Your task to perform on an android device: delete browsing data in the chrome app Image 0: 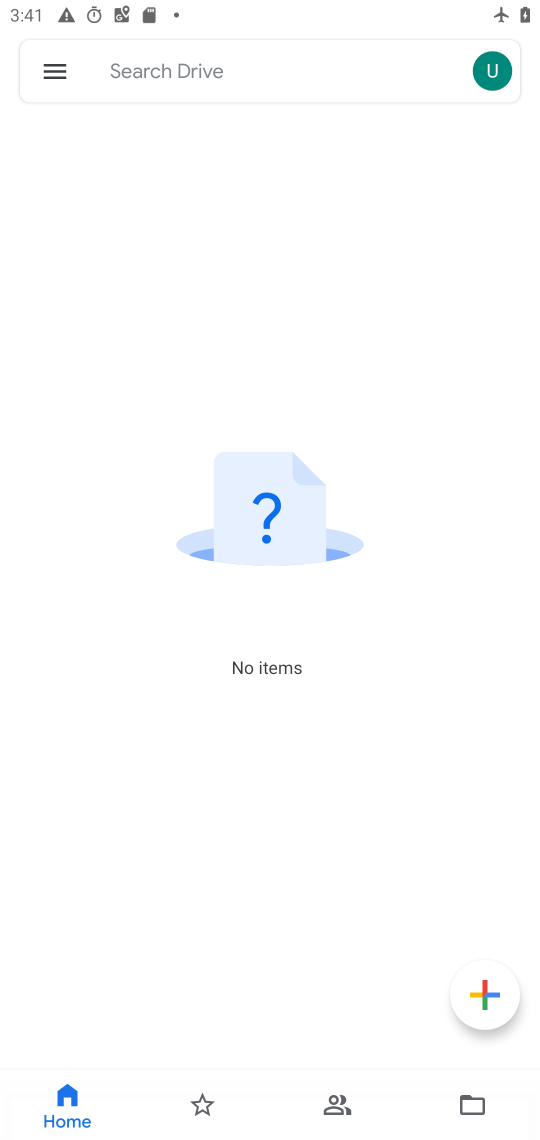
Step 0: press home button
Your task to perform on an android device: delete browsing data in the chrome app Image 1: 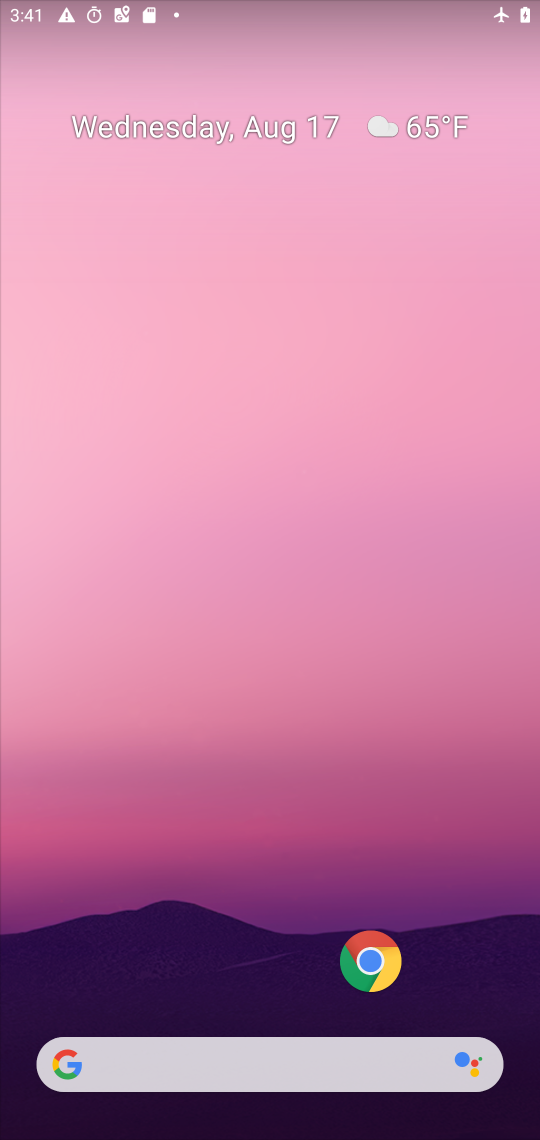
Step 1: drag from (257, 1077) to (218, 285)
Your task to perform on an android device: delete browsing data in the chrome app Image 2: 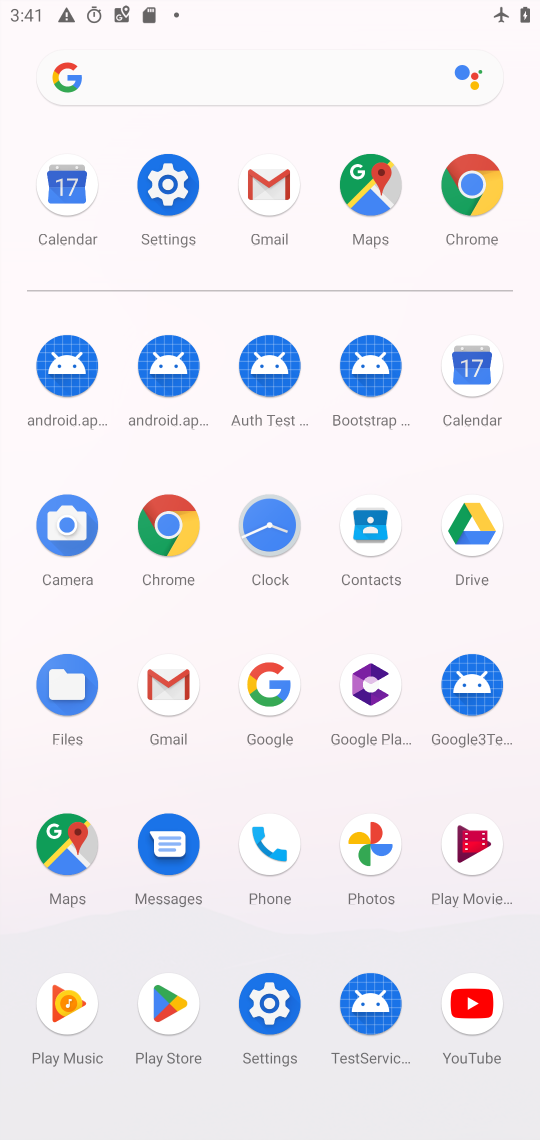
Step 2: click (195, 539)
Your task to perform on an android device: delete browsing data in the chrome app Image 3: 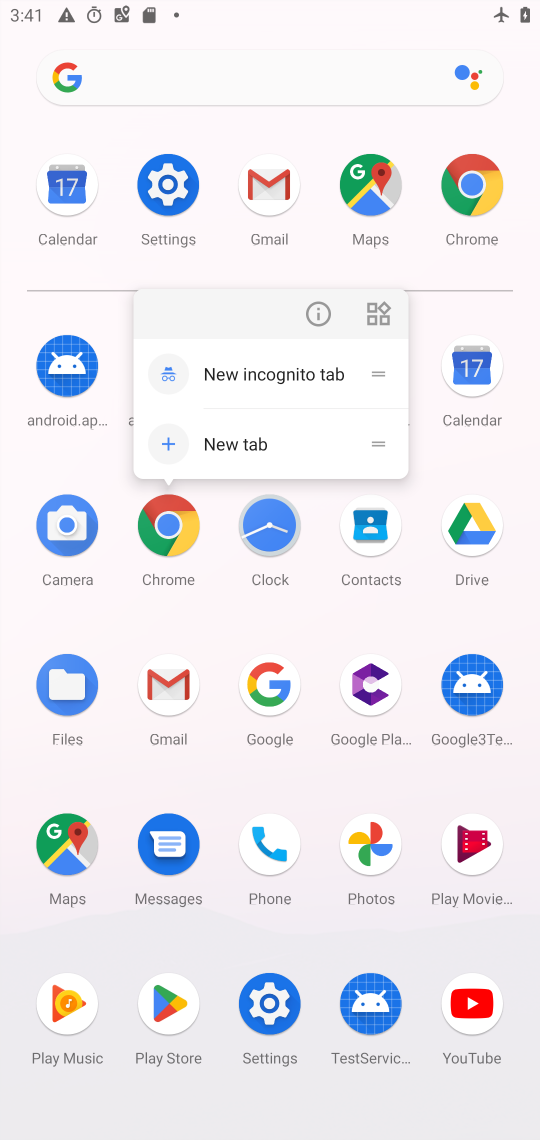
Step 3: click (157, 555)
Your task to perform on an android device: delete browsing data in the chrome app Image 4: 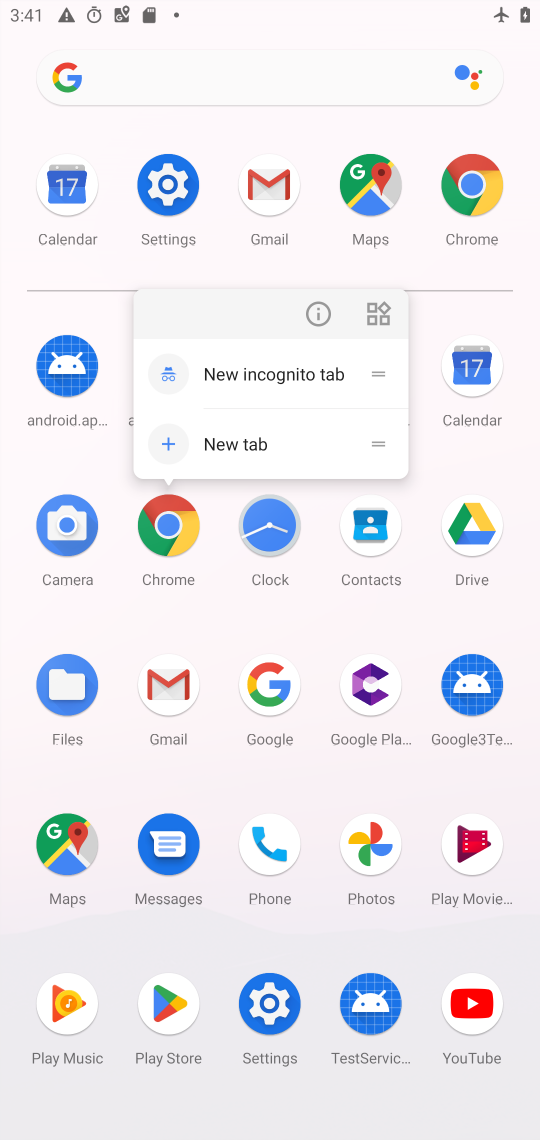
Step 4: click (157, 555)
Your task to perform on an android device: delete browsing data in the chrome app Image 5: 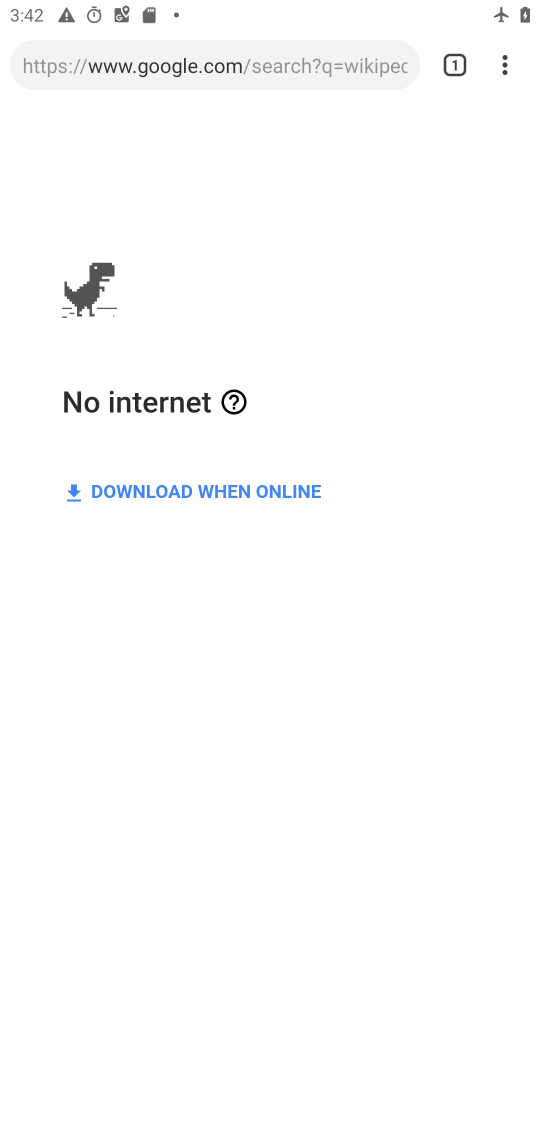
Step 5: click (501, 69)
Your task to perform on an android device: delete browsing data in the chrome app Image 6: 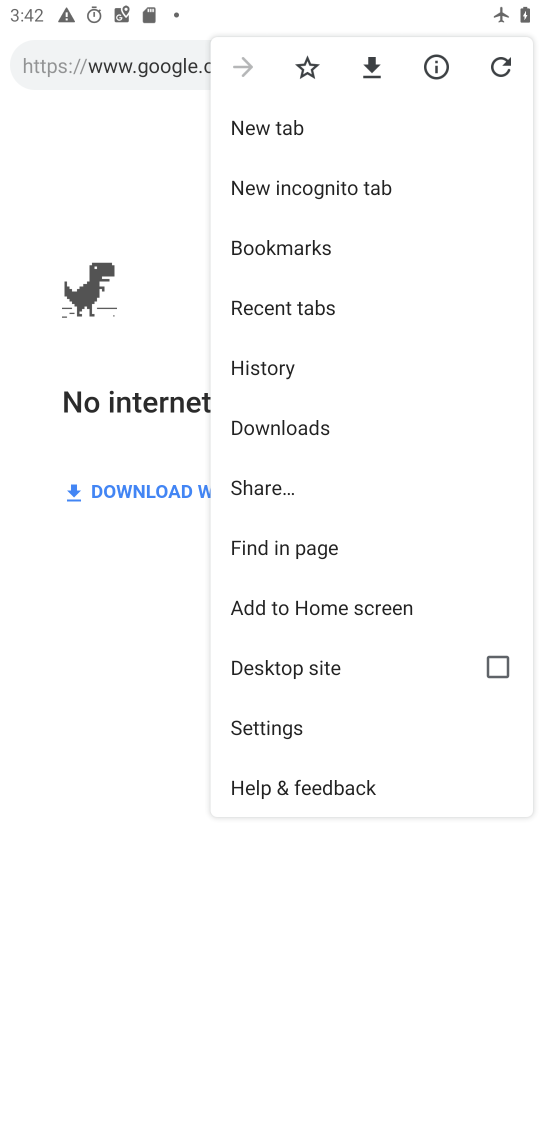
Step 6: click (243, 361)
Your task to perform on an android device: delete browsing data in the chrome app Image 7: 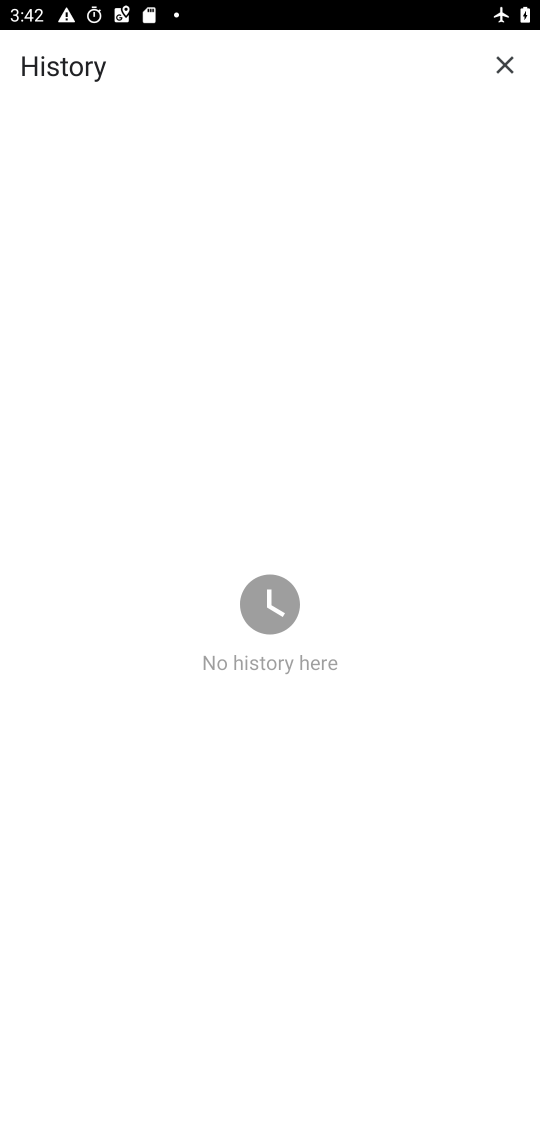
Step 7: task complete